Your task to perform on an android device: see tabs open on other devices in the chrome app Image 0: 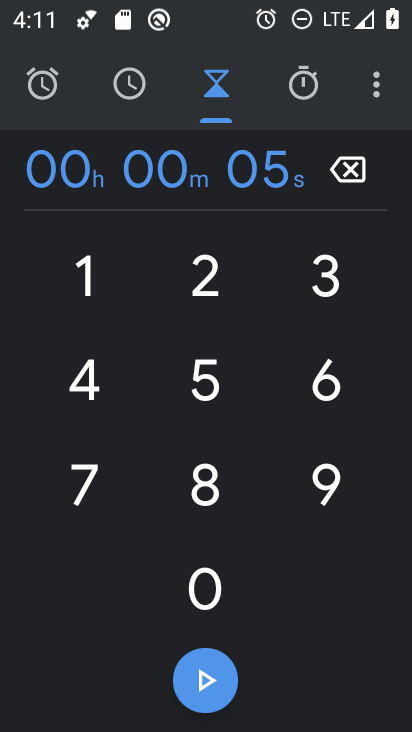
Step 0: press home button
Your task to perform on an android device: see tabs open on other devices in the chrome app Image 1: 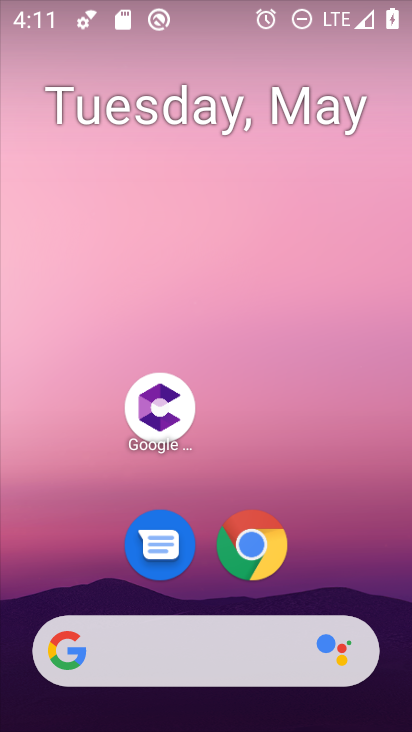
Step 1: drag from (355, 565) to (341, 150)
Your task to perform on an android device: see tabs open on other devices in the chrome app Image 2: 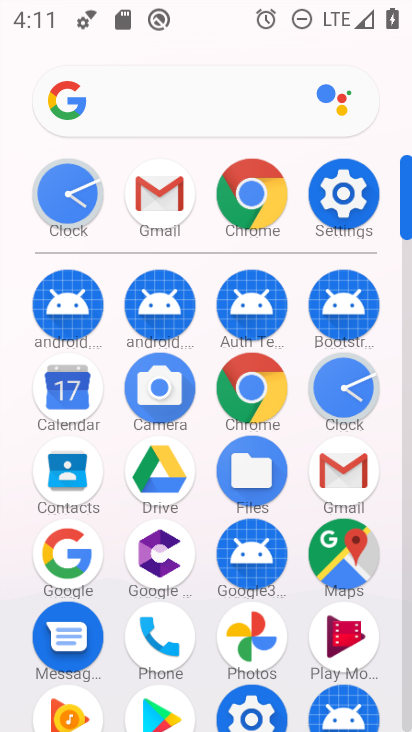
Step 2: click (245, 405)
Your task to perform on an android device: see tabs open on other devices in the chrome app Image 3: 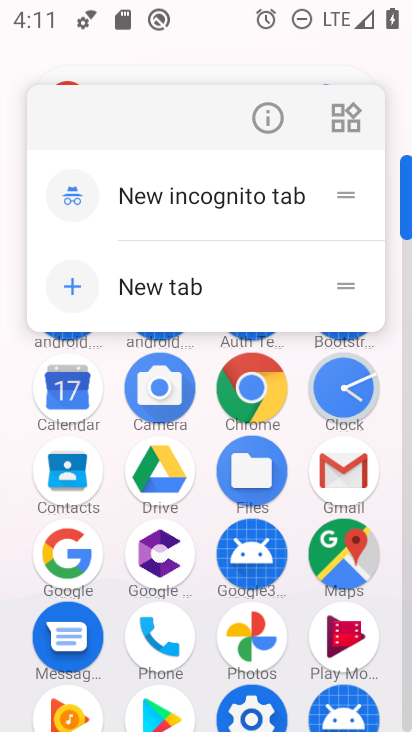
Step 3: click (245, 405)
Your task to perform on an android device: see tabs open on other devices in the chrome app Image 4: 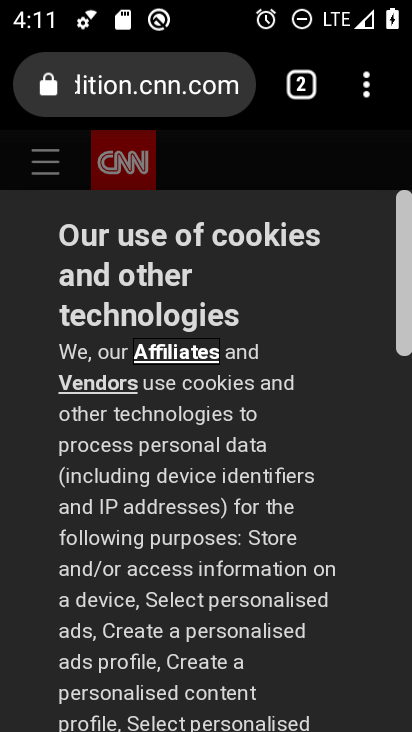
Step 4: click (368, 93)
Your task to perform on an android device: see tabs open on other devices in the chrome app Image 5: 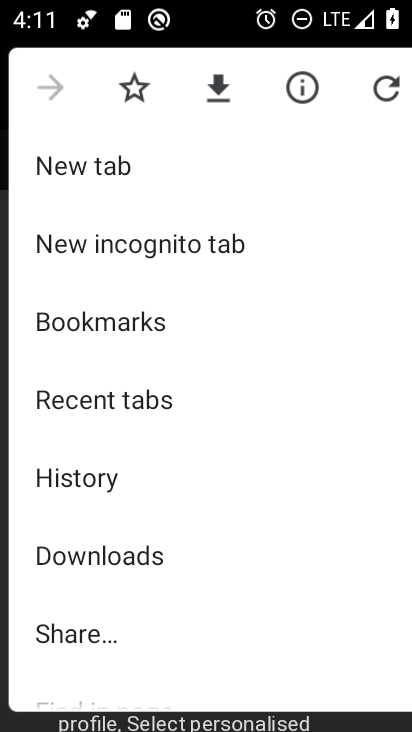
Step 5: drag from (340, 554) to (335, 441)
Your task to perform on an android device: see tabs open on other devices in the chrome app Image 6: 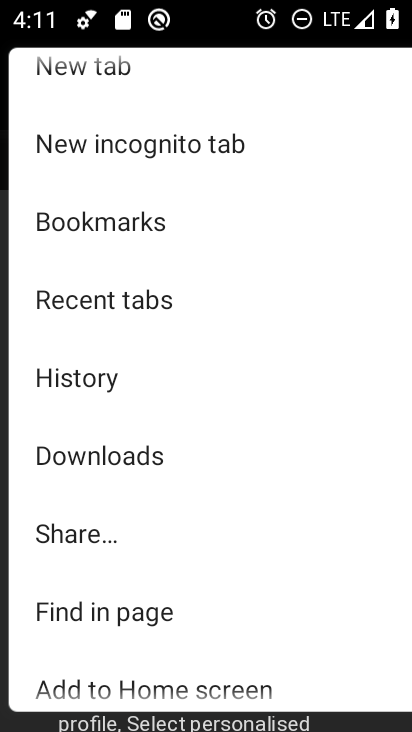
Step 6: drag from (325, 586) to (316, 433)
Your task to perform on an android device: see tabs open on other devices in the chrome app Image 7: 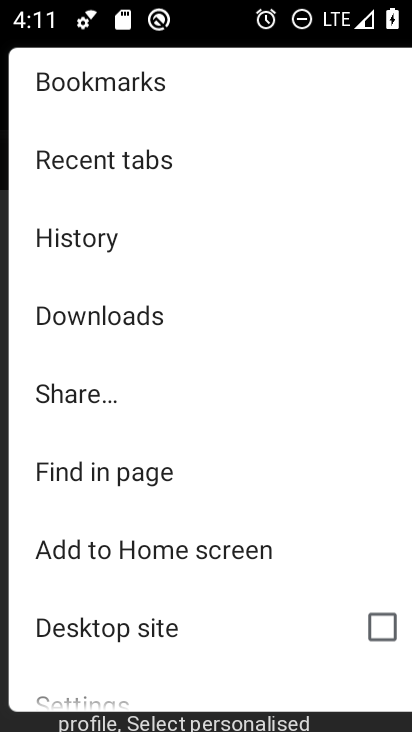
Step 7: drag from (290, 626) to (298, 457)
Your task to perform on an android device: see tabs open on other devices in the chrome app Image 8: 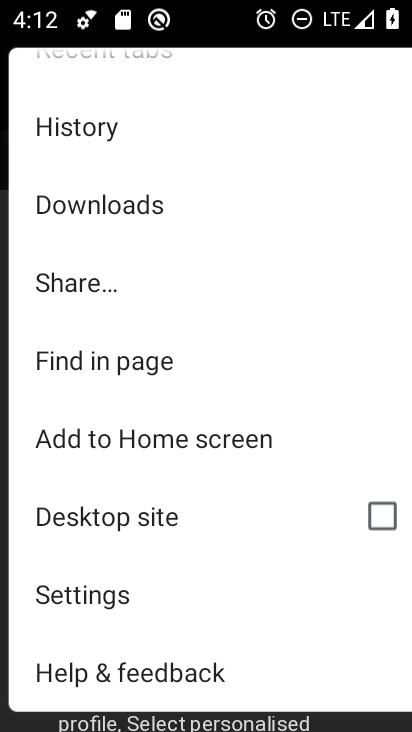
Step 8: drag from (276, 288) to (287, 393)
Your task to perform on an android device: see tabs open on other devices in the chrome app Image 9: 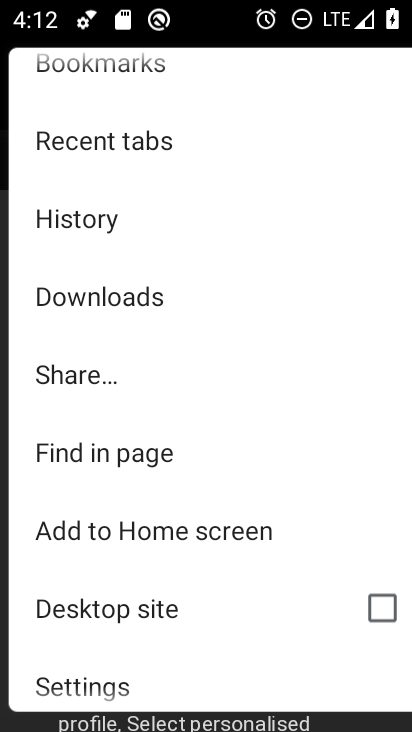
Step 9: drag from (252, 239) to (240, 364)
Your task to perform on an android device: see tabs open on other devices in the chrome app Image 10: 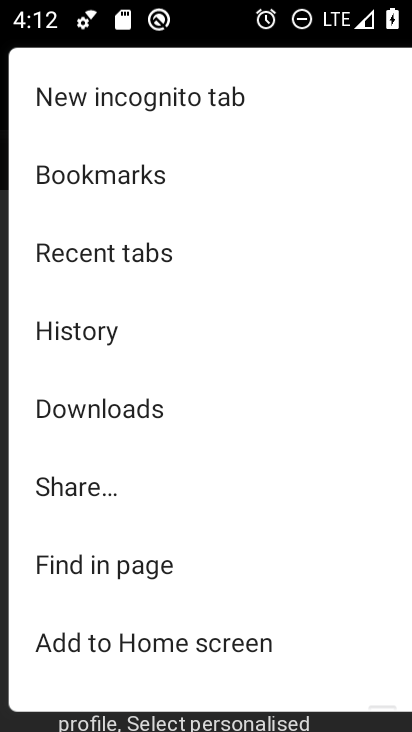
Step 10: click (146, 256)
Your task to perform on an android device: see tabs open on other devices in the chrome app Image 11: 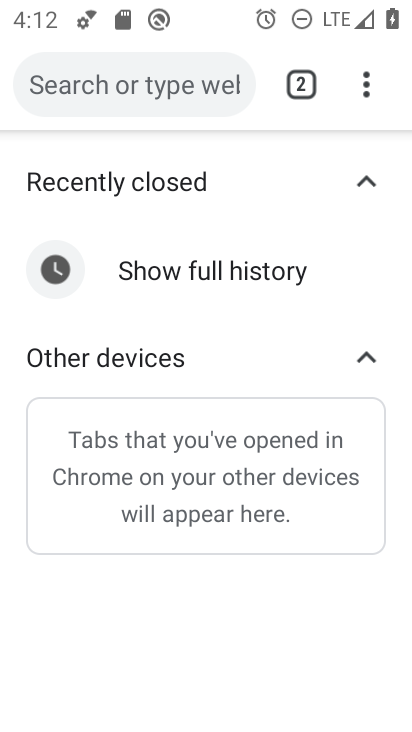
Step 11: click (301, 76)
Your task to perform on an android device: see tabs open on other devices in the chrome app Image 12: 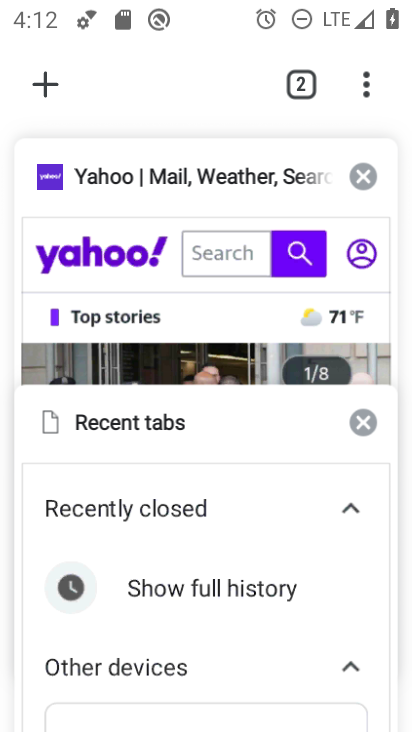
Step 12: task complete